Your task to perform on an android device: add a label to a message in the gmail app Image 0: 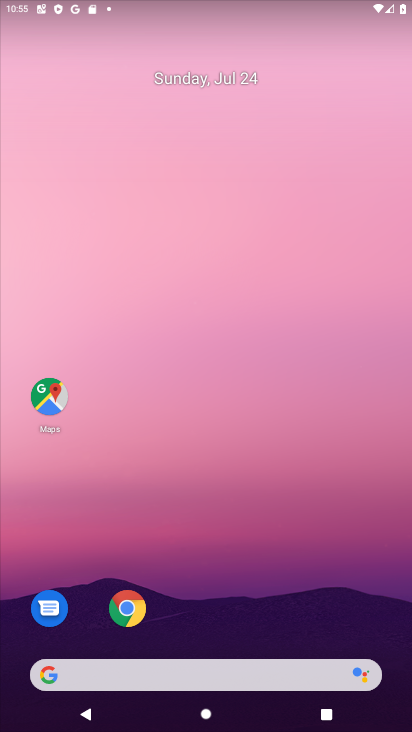
Step 0: drag from (230, 632) to (238, 28)
Your task to perform on an android device: add a label to a message in the gmail app Image 1: 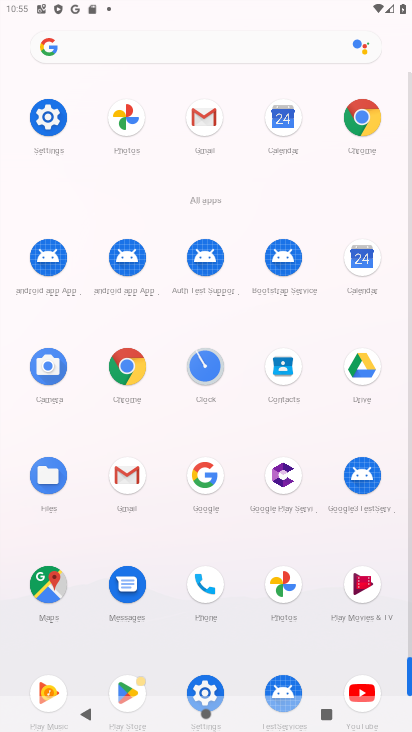
Step 1: click (205, 112)
Your task to perform on an android device: add a label to a message in the gmail app Image 2: 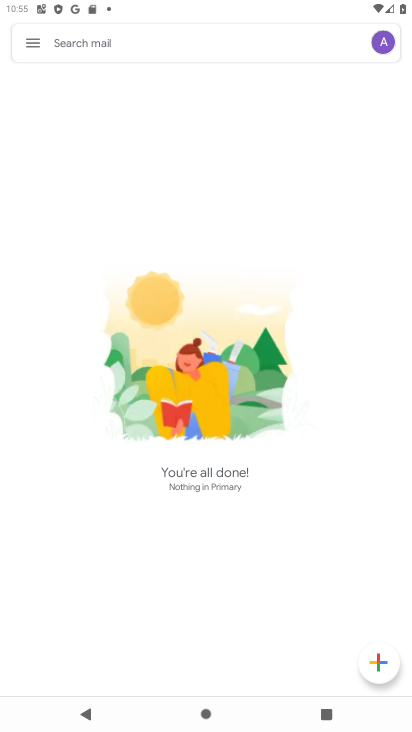
Step 2: press home button
Your task to perform on an android device: add a label to a message in the gmail app Image 3: 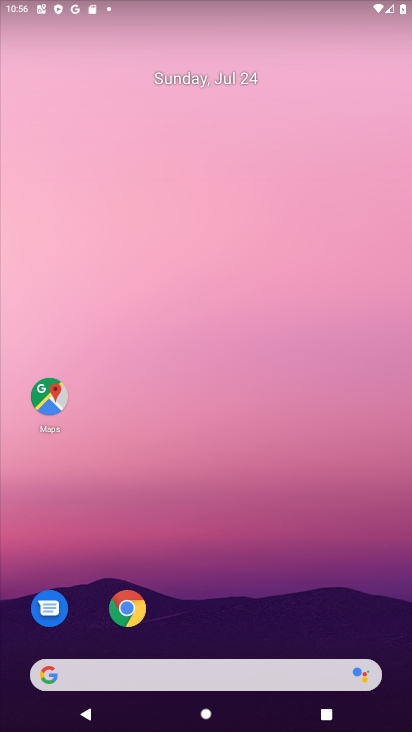
Step 3: drag from (237, 633) to (220, 56)
Your task to perform on an android device: add a label to a message in the gmail app Image 4: 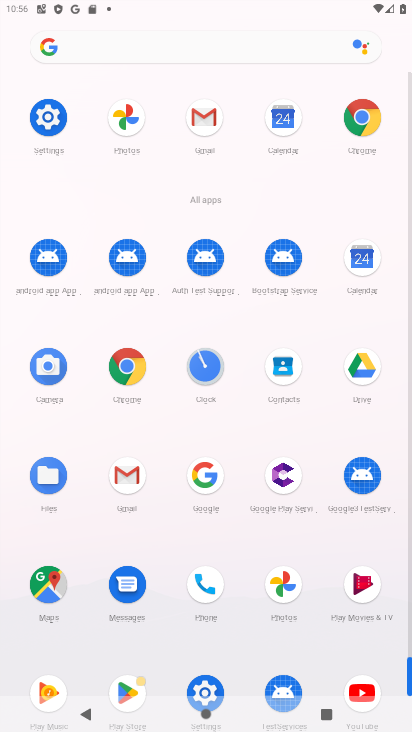
Step 4: click (202, 112)
Your task to perform on an android device: add a label to a message in the gmail app Image 5: 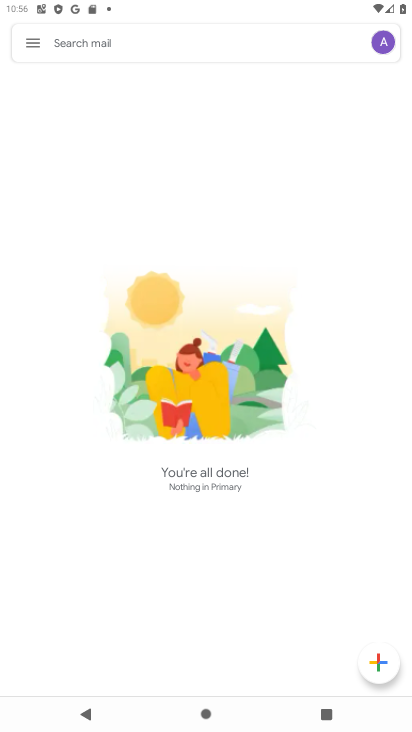
Step 5: task complete